Your task to perform on an android device: Go to calendar. Show me events next week Image 0: 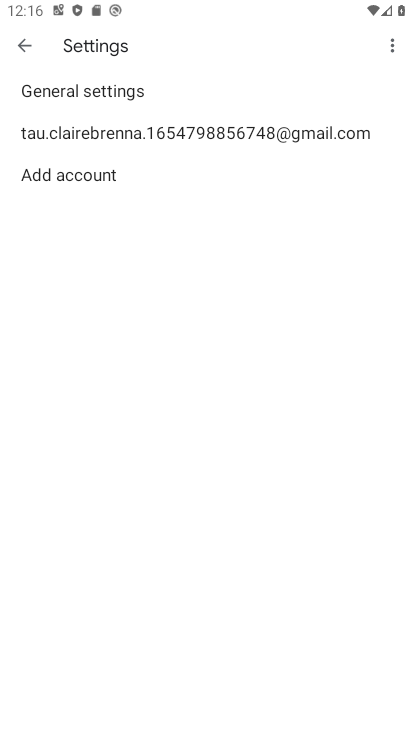
Step 0: press home button
Your task to perform on an android device: Go to calendar. Show me events next week Image 1: 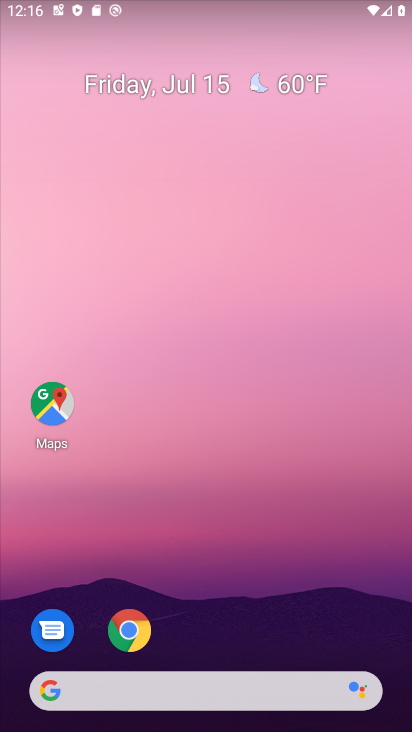
Step 1: drag from (13, 699) to (104, 363)
Your task to perform on an android device: Go to calendar. Show me events next week Image 2: 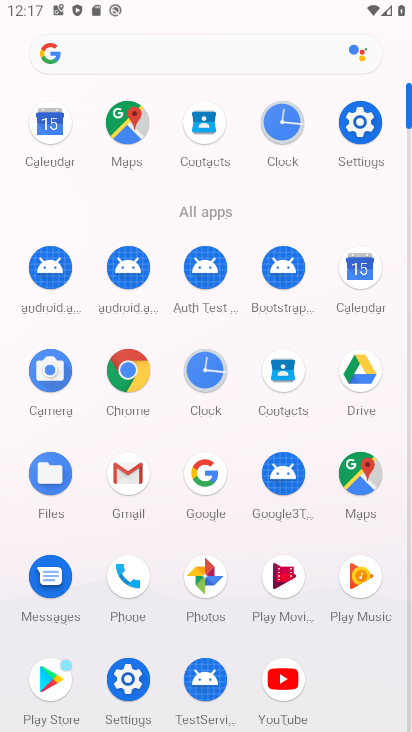
Step 2: click (364, 274)
Your task to perform on an android device: Go to calendar. Show me events next week Image 3: 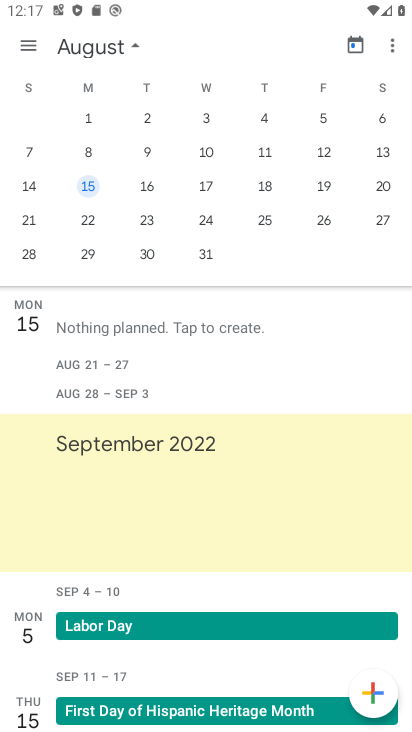
Step 3: task complete